Your task to perform on an android device: open app "VLC for Android" (install if not already installed) and go to login screen Image 0: 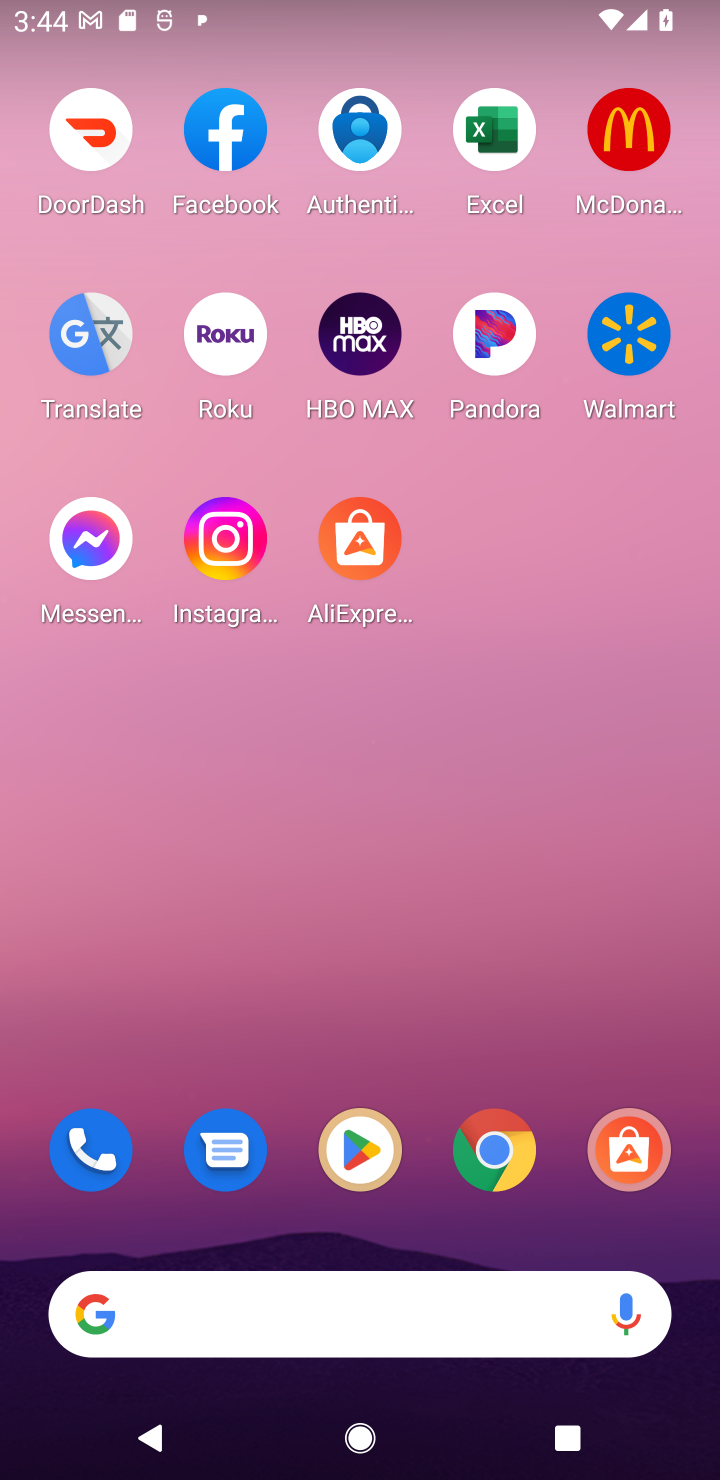
Step 0: click (364, 1145)
Your task to perform on an android device: open app "VLC for Android" (install if not already installed) and go to login screen Image 1: 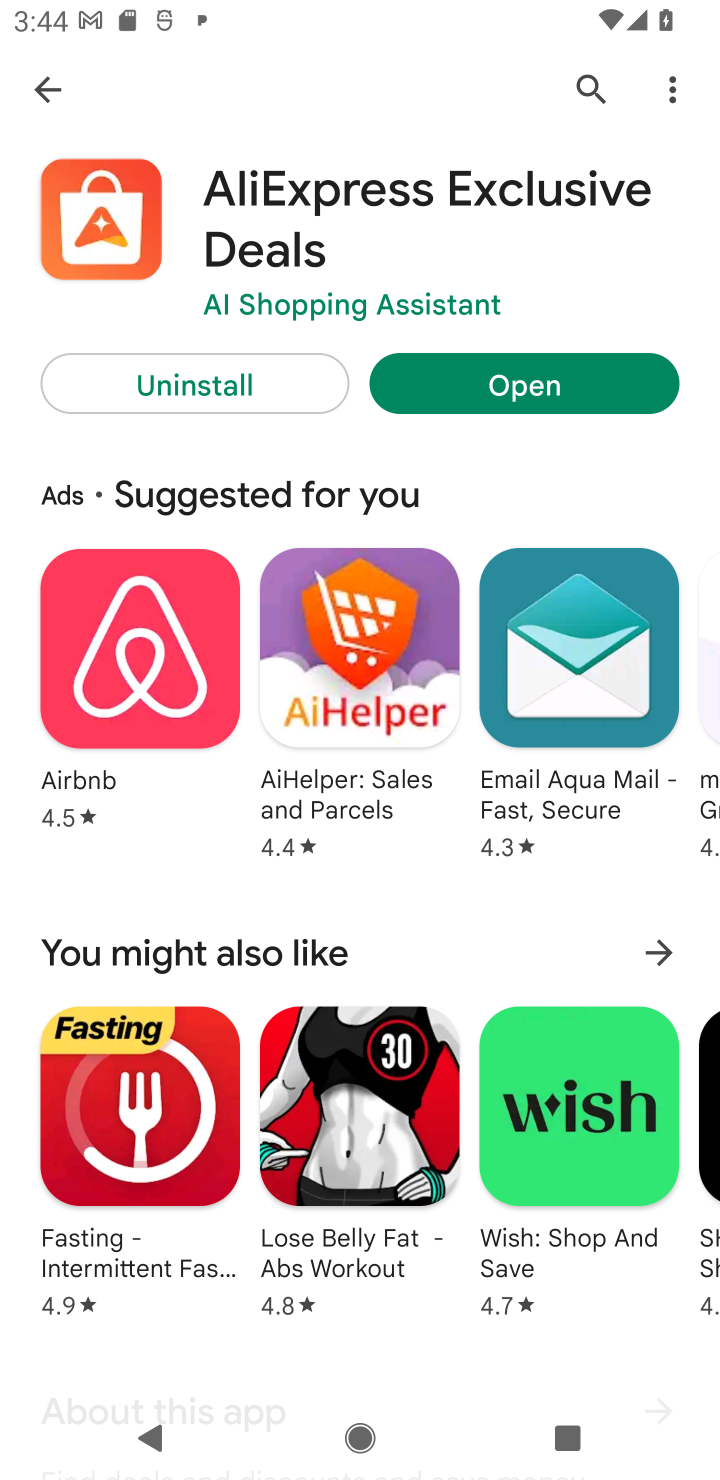
Step 1: click (580, 85)
Your task to perform on an android device: open app "VLC for Android" (install if not already installed) and go to login screen Image 2: 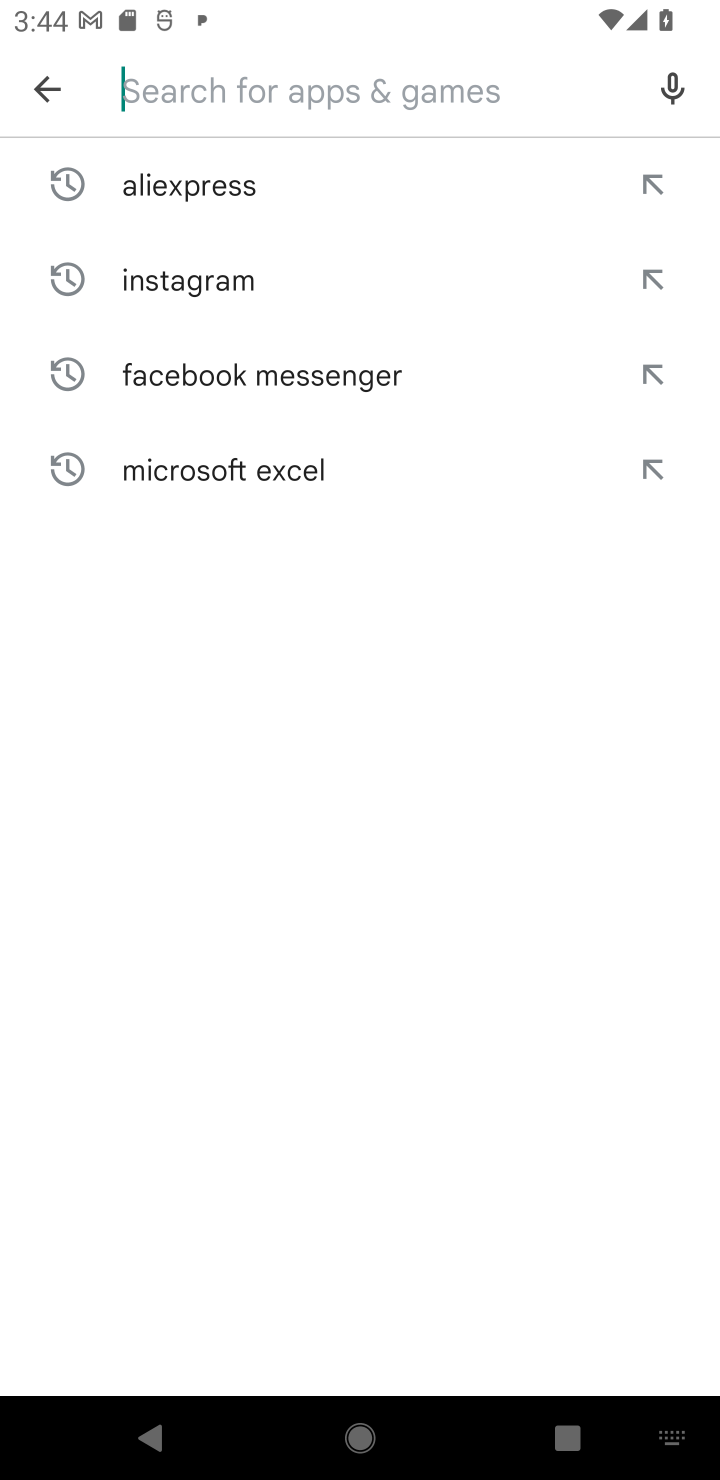
Step 2: type "VLC for Android"
Your task to perform on an android device: open app "VLC for Android" (install if not already installed) and go to login screen Image 3: 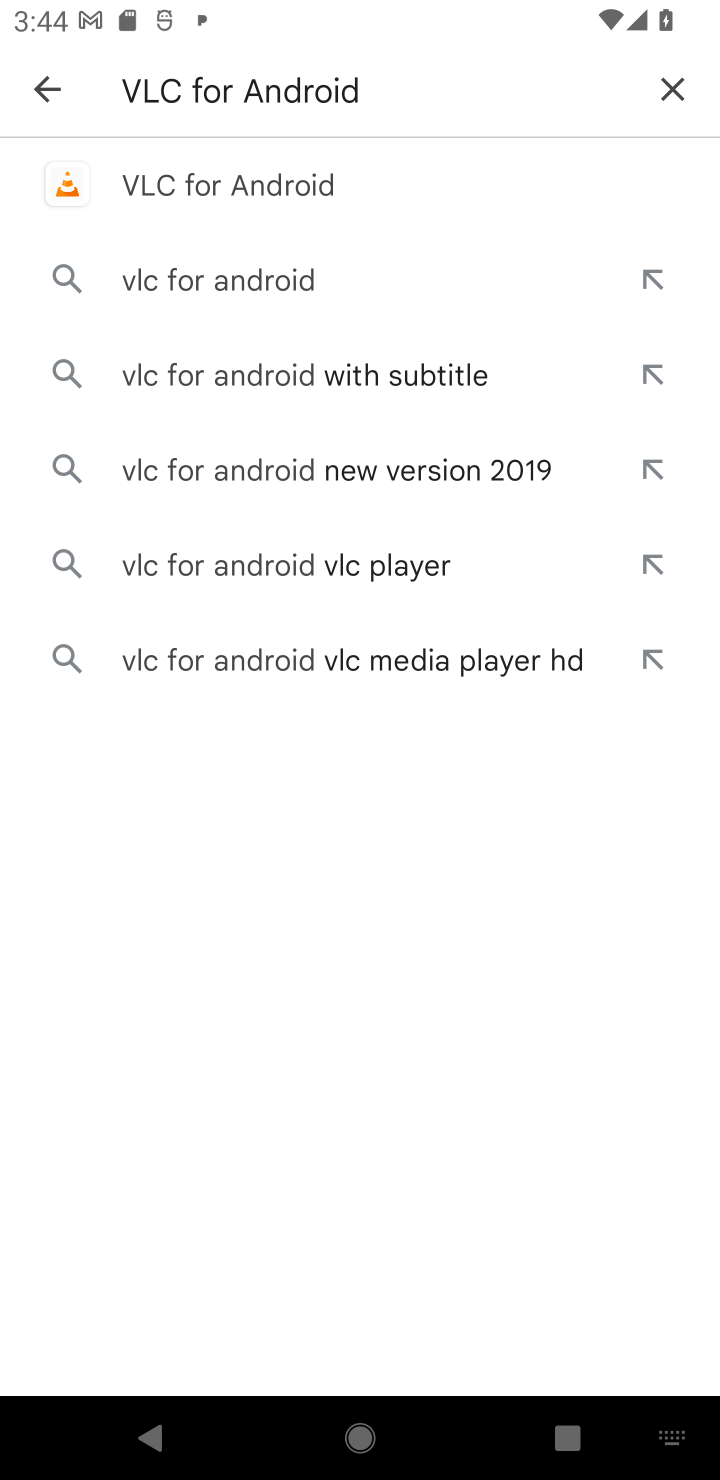
Step 3: click (217, 179)
Your task to perform on an android device: open app "VLC for Android" (install if not already installed) and go to login screen Image 4: 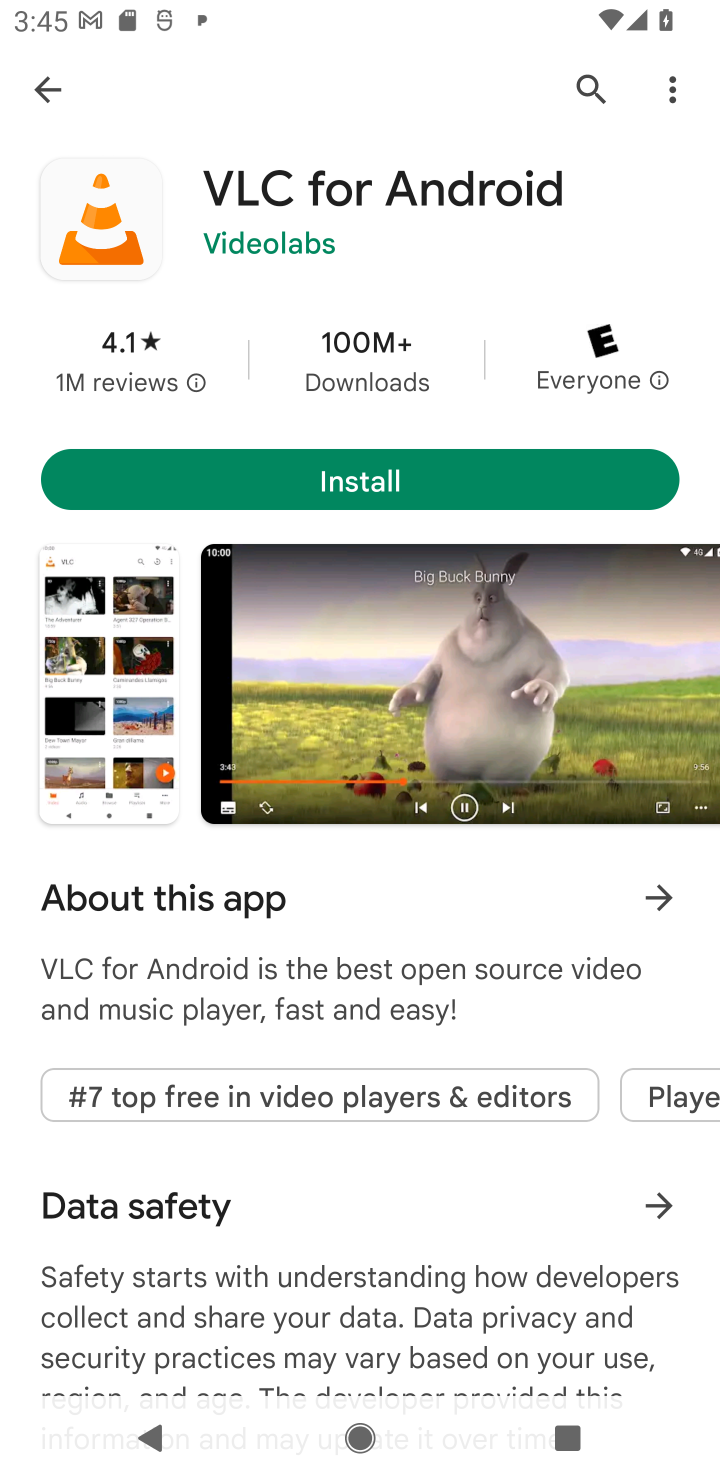
Step 4: click (361, 481)
Your task to perform on an android device: open app "VLC for Android" (install if not already installed) and go to login screen Image 5: 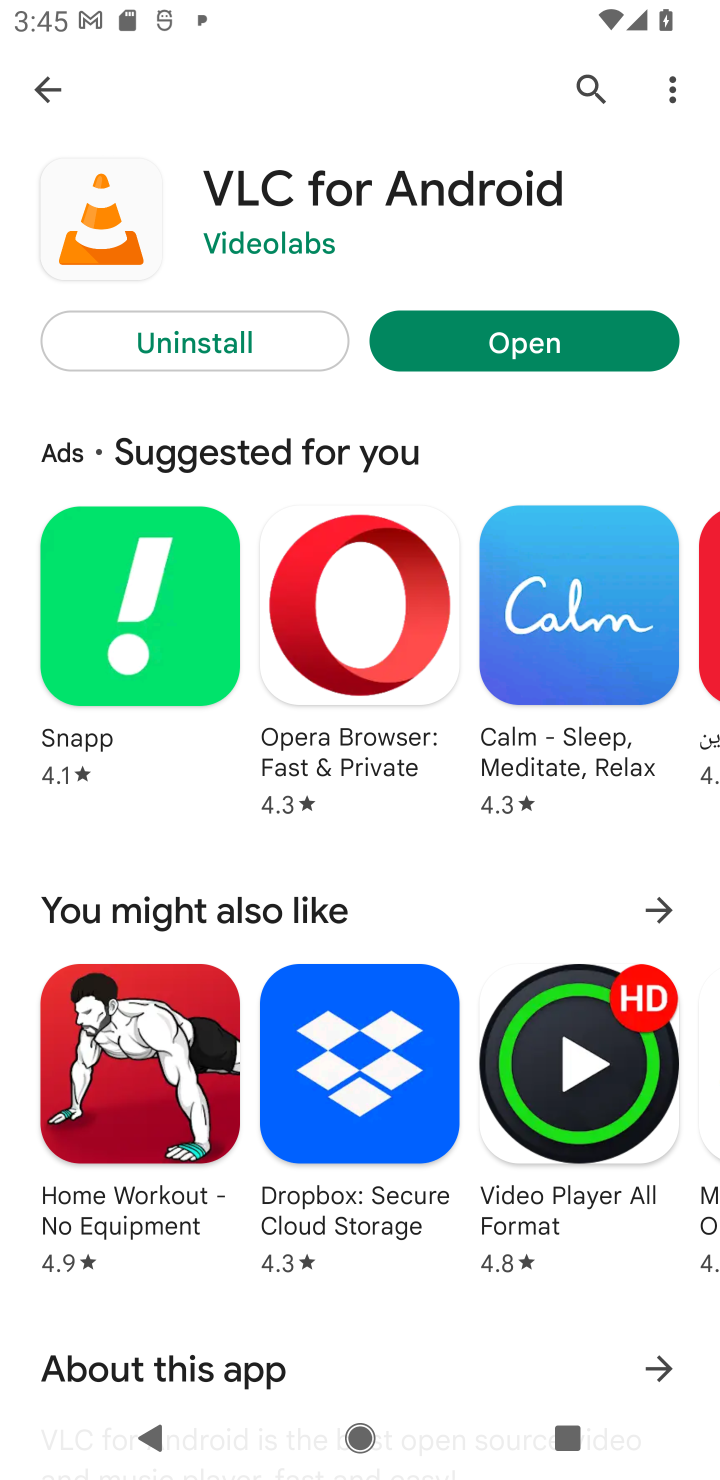
Step 5: click (528, 334)
Your task to perform on an android device: open app "VLC for Android" (install if not already installed) and go to login screen Image 6: 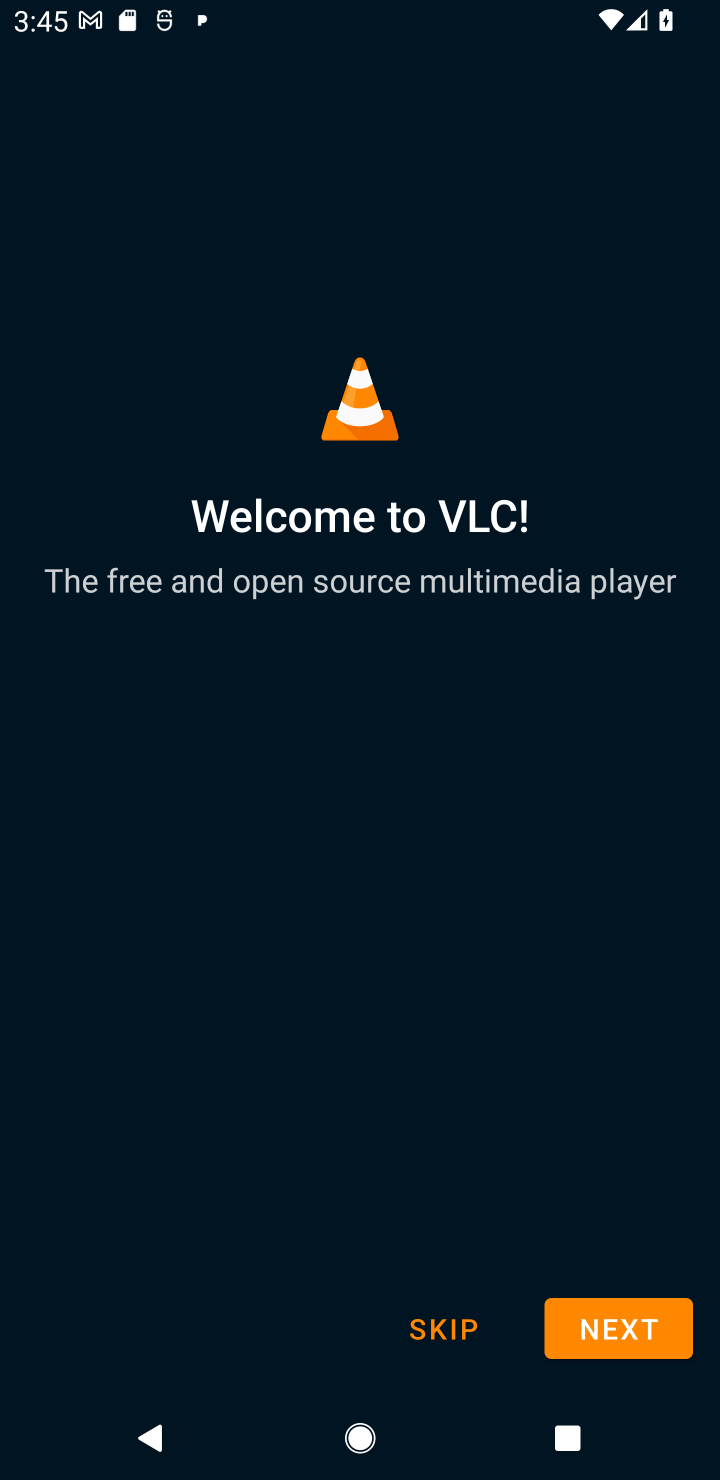
Step 6: click (434, 1330)
Your task to perform on an android device: open app "VLC for Android" (install if not already installed) and go to login screen Image 7: 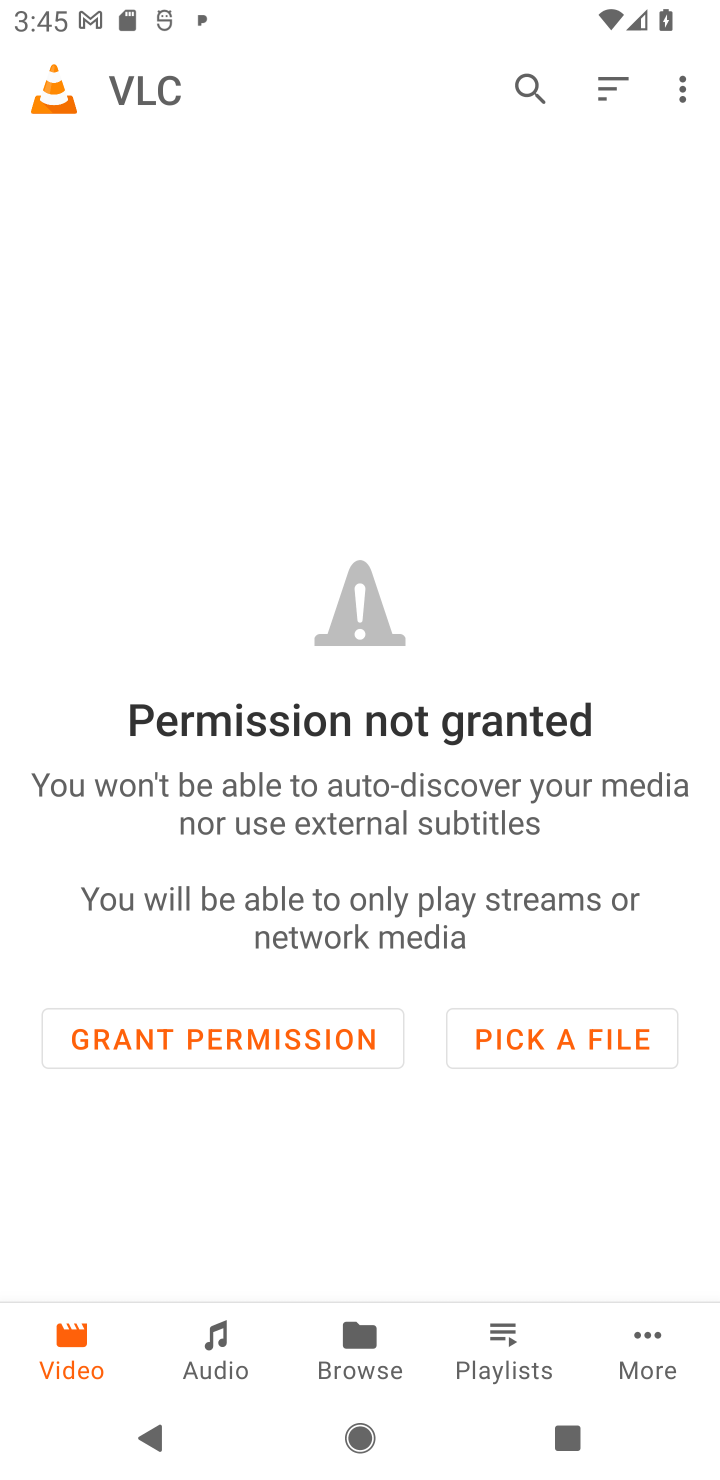
Step 7: click (646, 1339)
Your task to perform on an android device: open app "VLC for Android" (install if not already installed) and go to login screen Image 8: 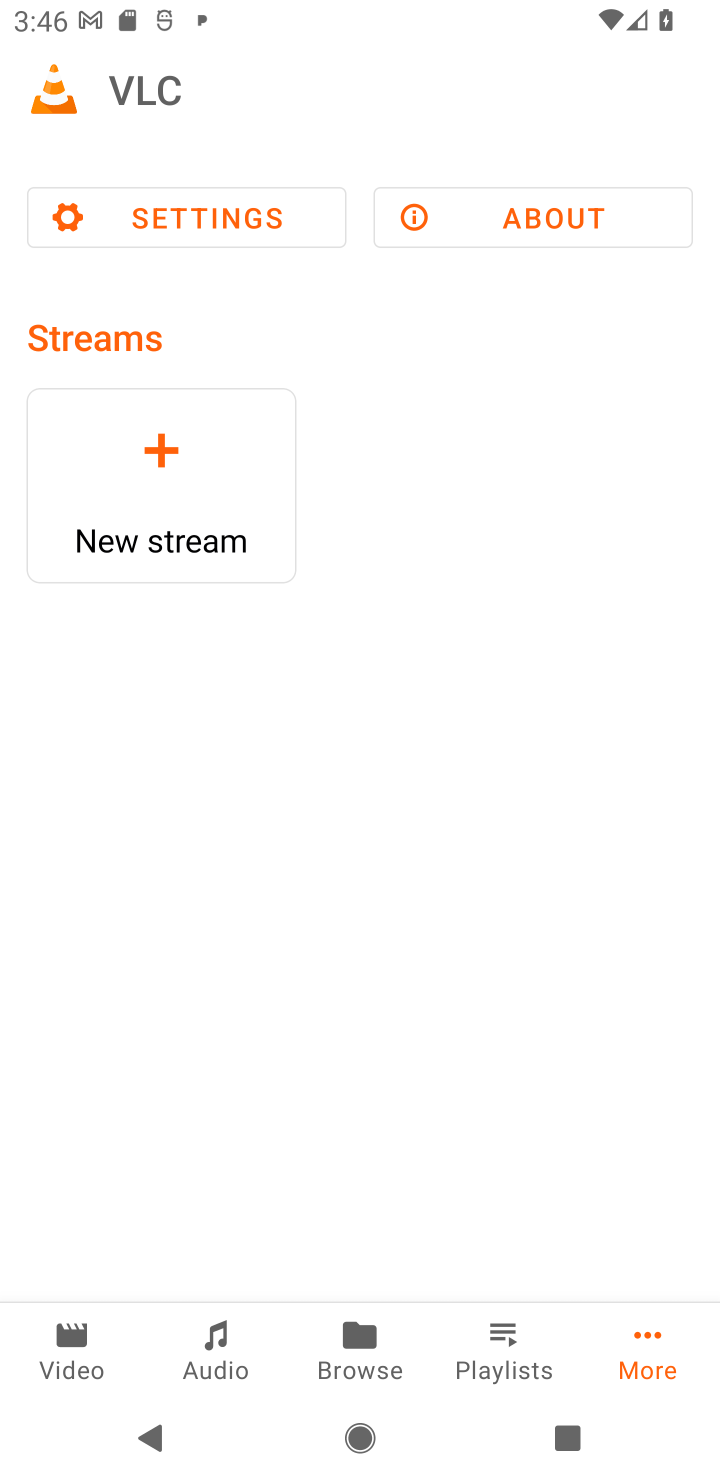
Step 8: press back button
Your task to perform on an android device: open app "VLC for Android" (install if not already installed) and go to login screen Image 9: 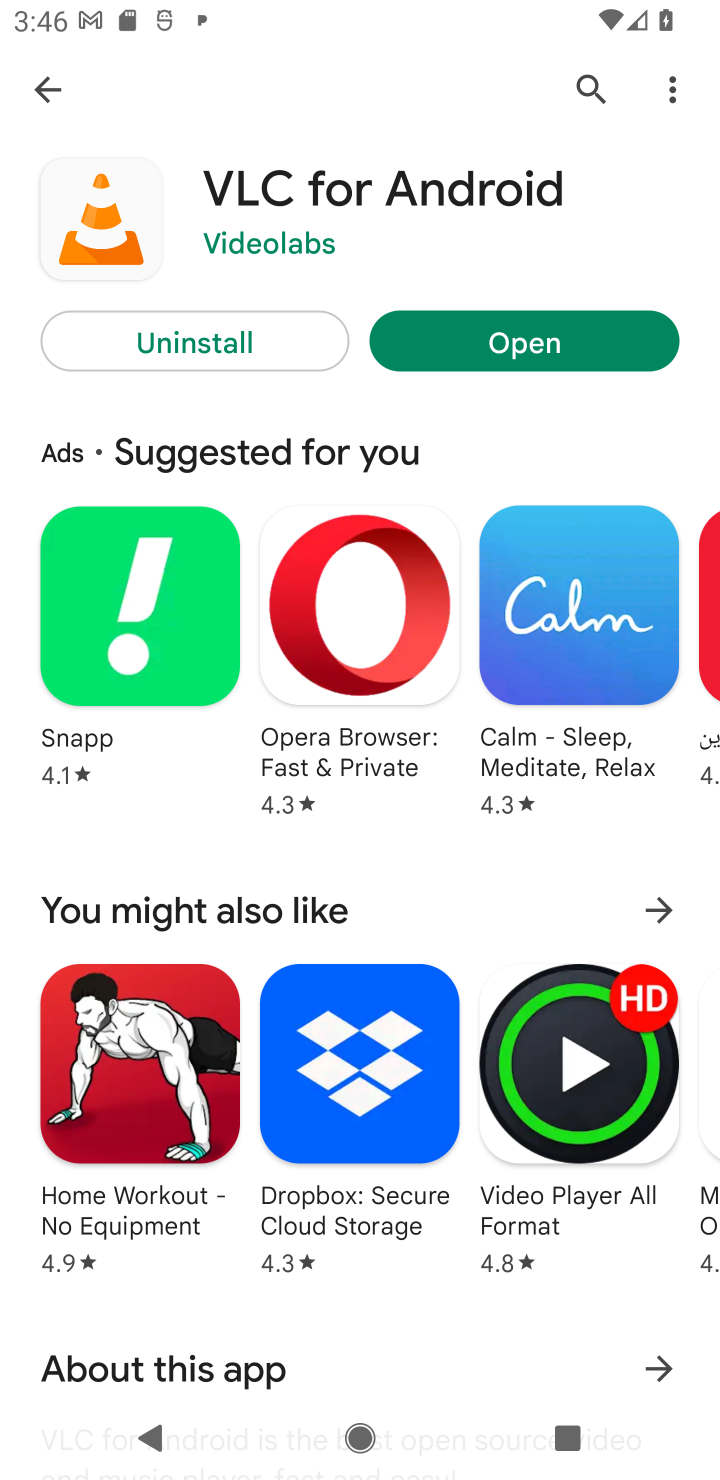
Step 9: click (505, 335)
Your task to perform on an android device: open app "VLC for Android" (install if not already installed) and go to login screen Image 10: 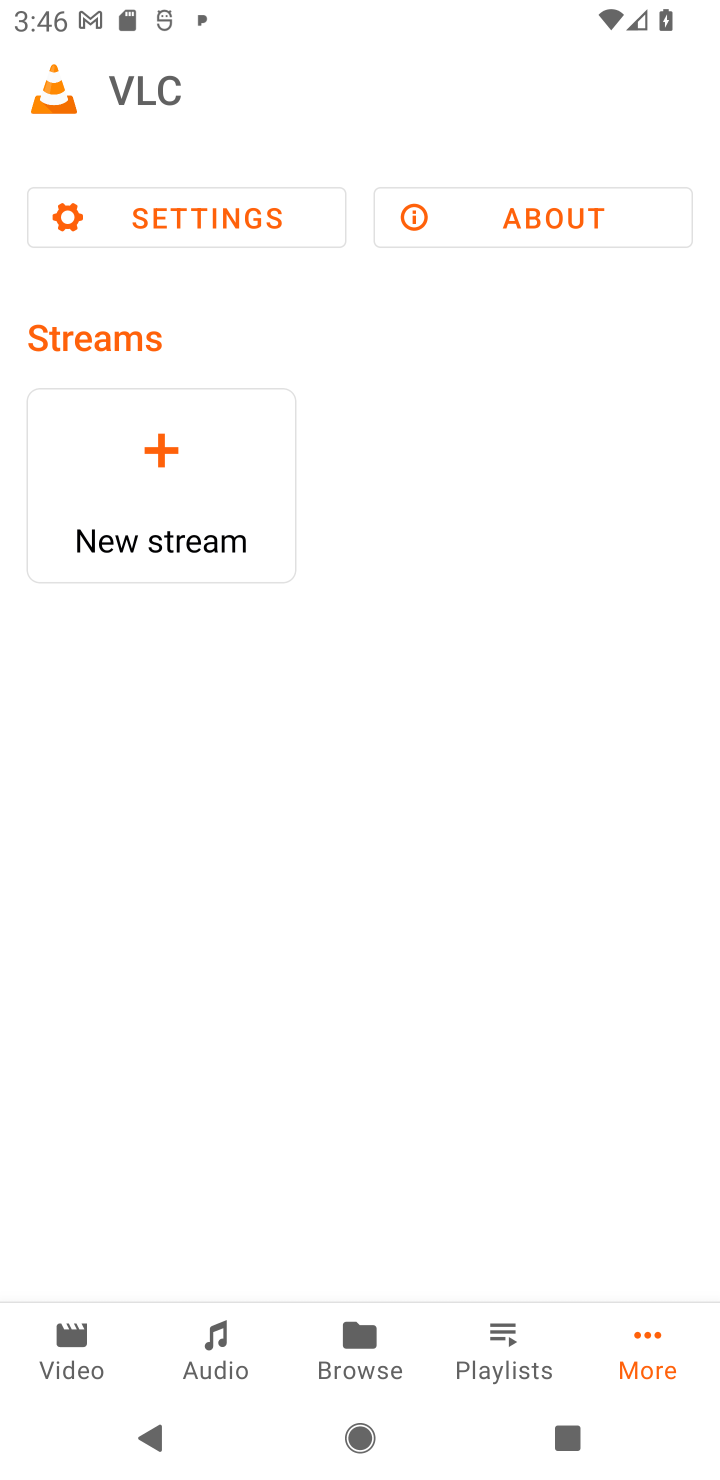
Step 10: click (76, 214)
Your task to perform on an android device: open app "VLC for Android" (install if not already installed) and go to login screen Image 11: 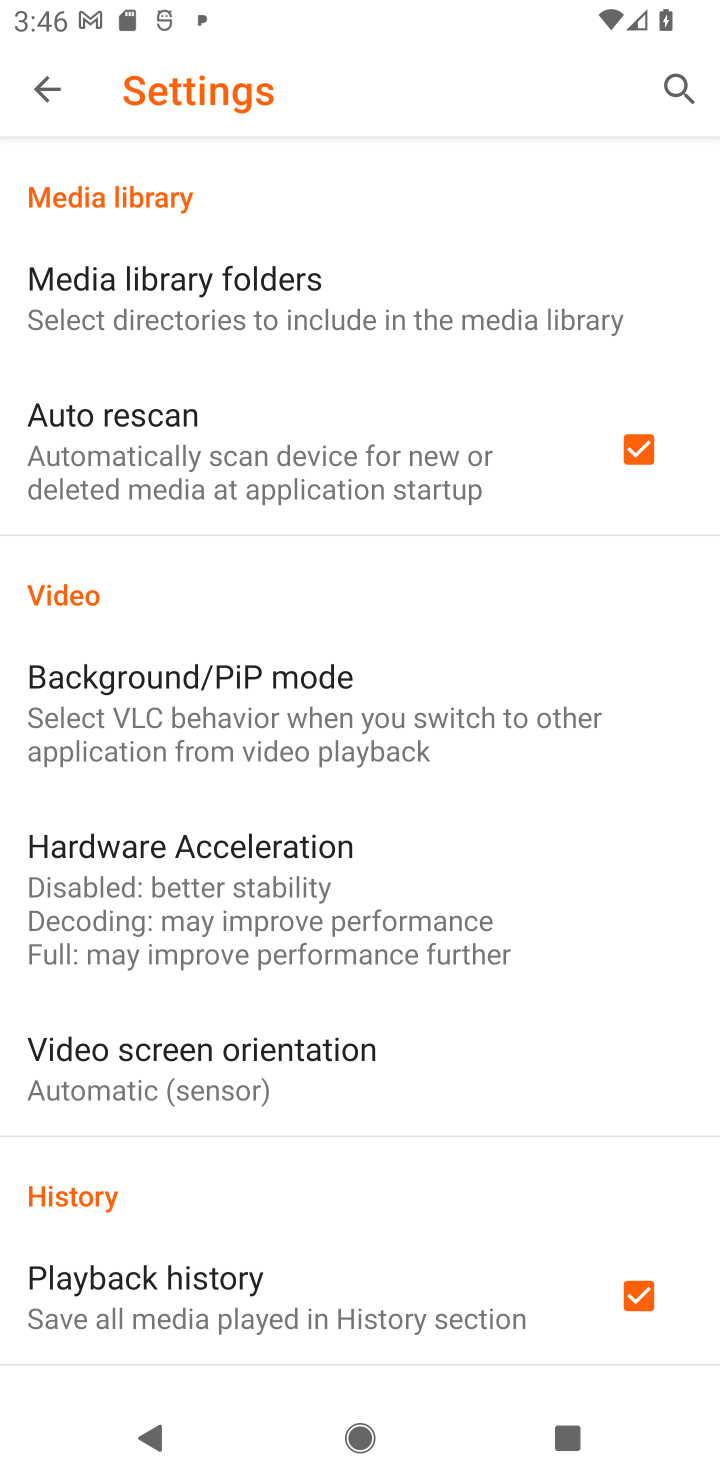
Step 11: drag from (417, 1258) to (428, 518)
Your task to perform on an android device: open app "VLC for Android" (install if not already installed) and go to login screen Image 12: 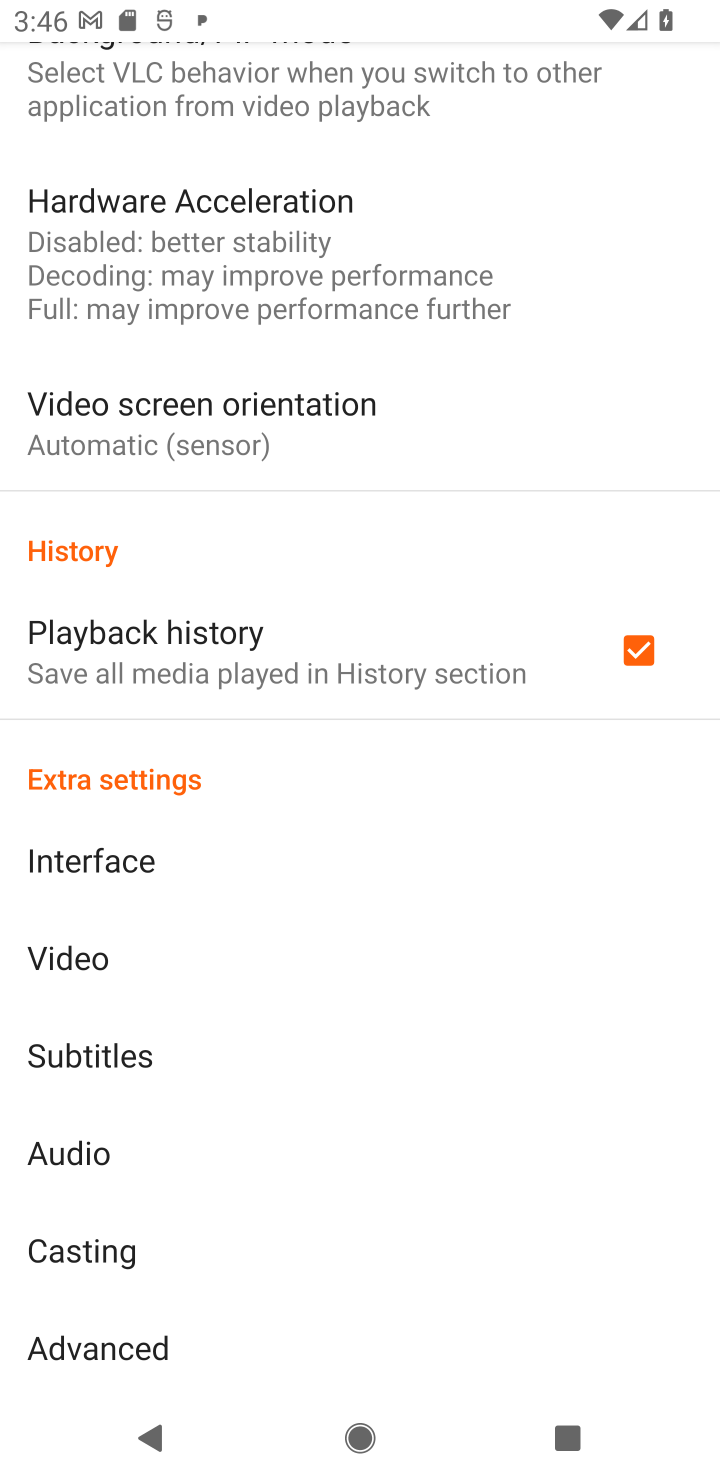
Step 12: drag from (405, 1276) to (384, 672)
Your task to perform on an android device: open app "VLC for Android" (install if not already installed) and go to login screen Image 13: 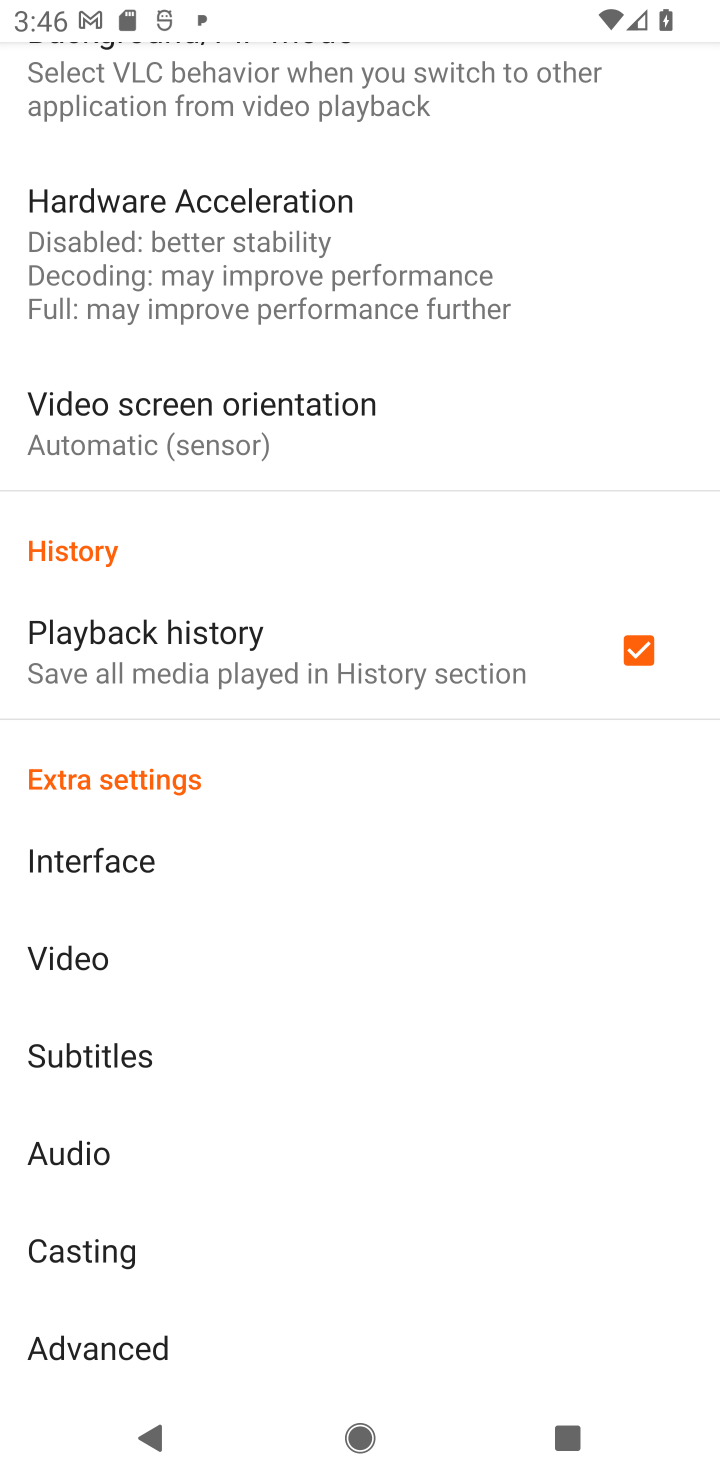
Step 13: drag from (384, 672) to (377, 1148)
Your task to perform on an android device: open app "VLC for Android" (install if not already installed) and go to login screen Image 14: 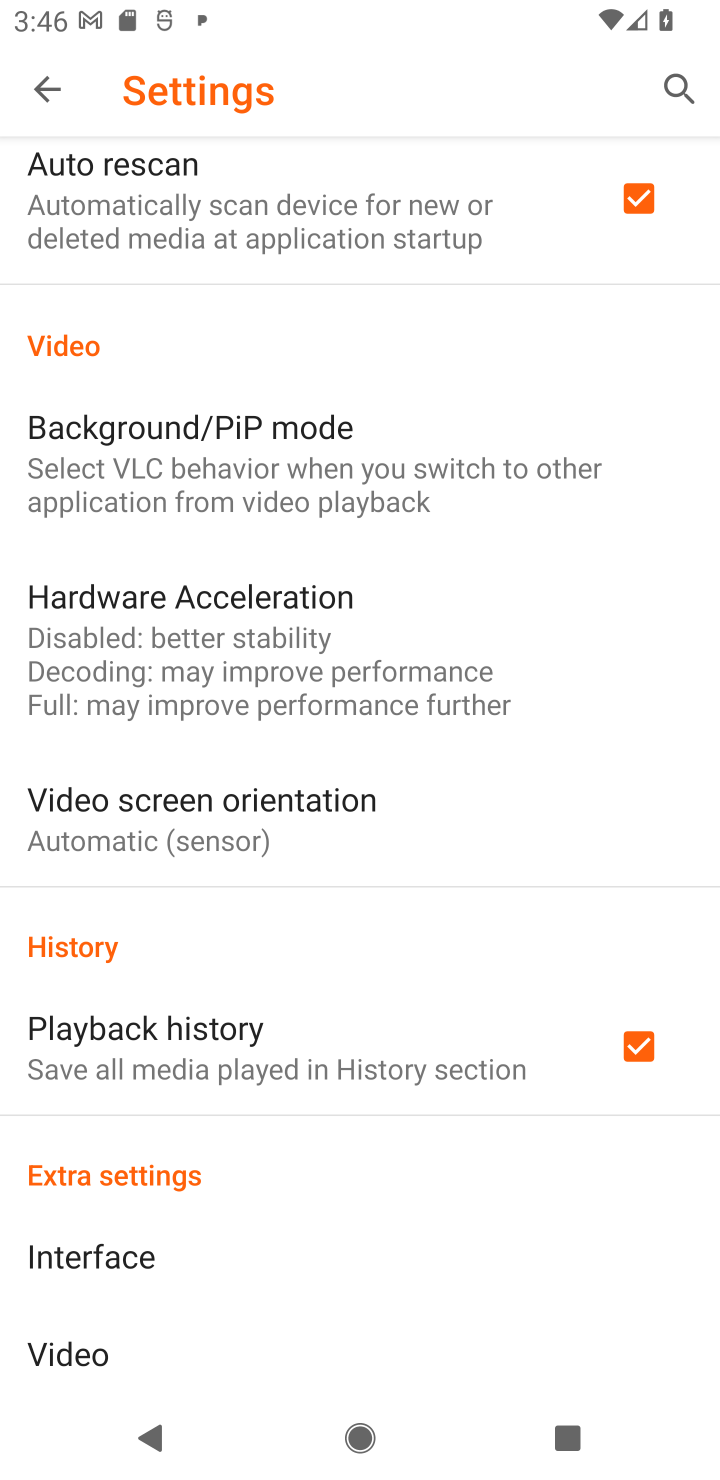
Step 14: drag from (502, 430) to (467, 1041)
Your task to perform on an android device: open app "VLC for Android" (install if not already installed) and go to login screen Image 15: 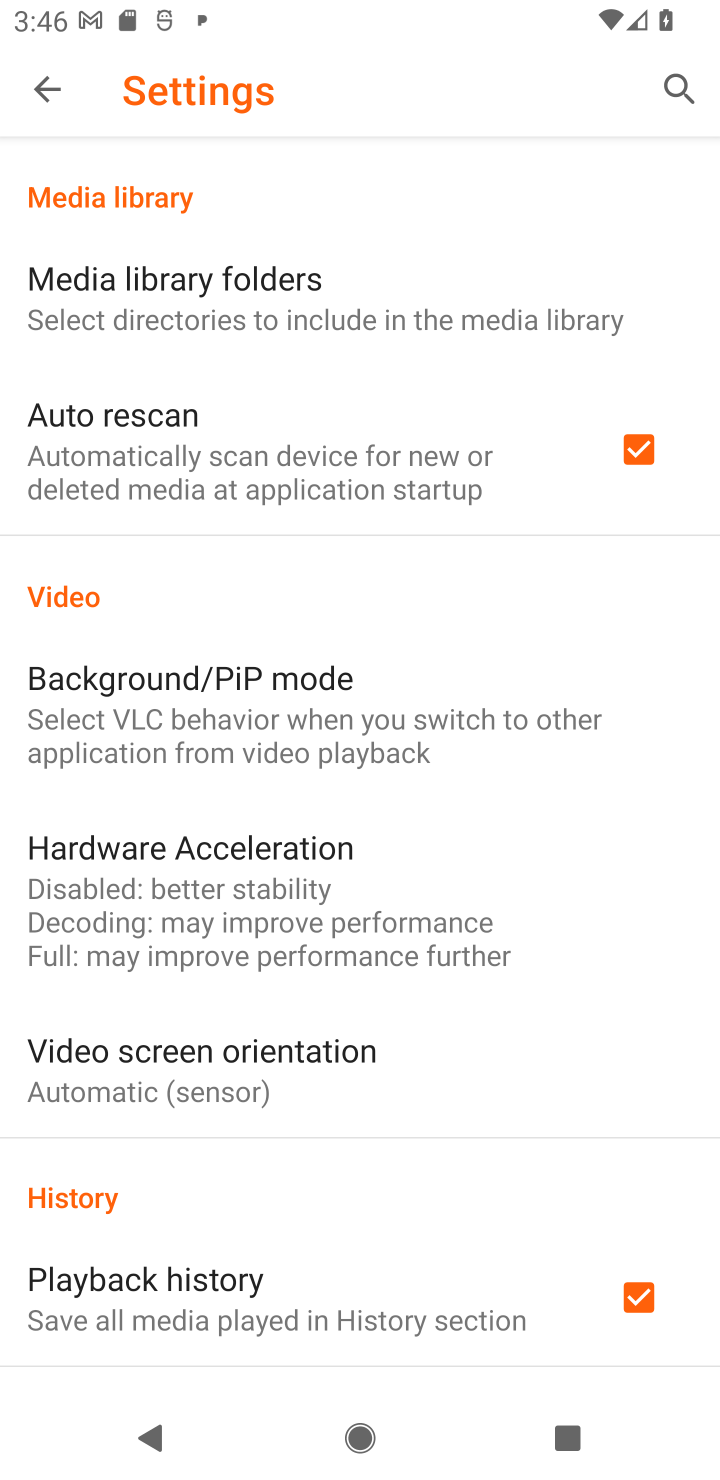
Step 15: press back button
Your task to perform on an android device: open app "VLC for Android" (install if not already installed) and go to login screen Image 16: 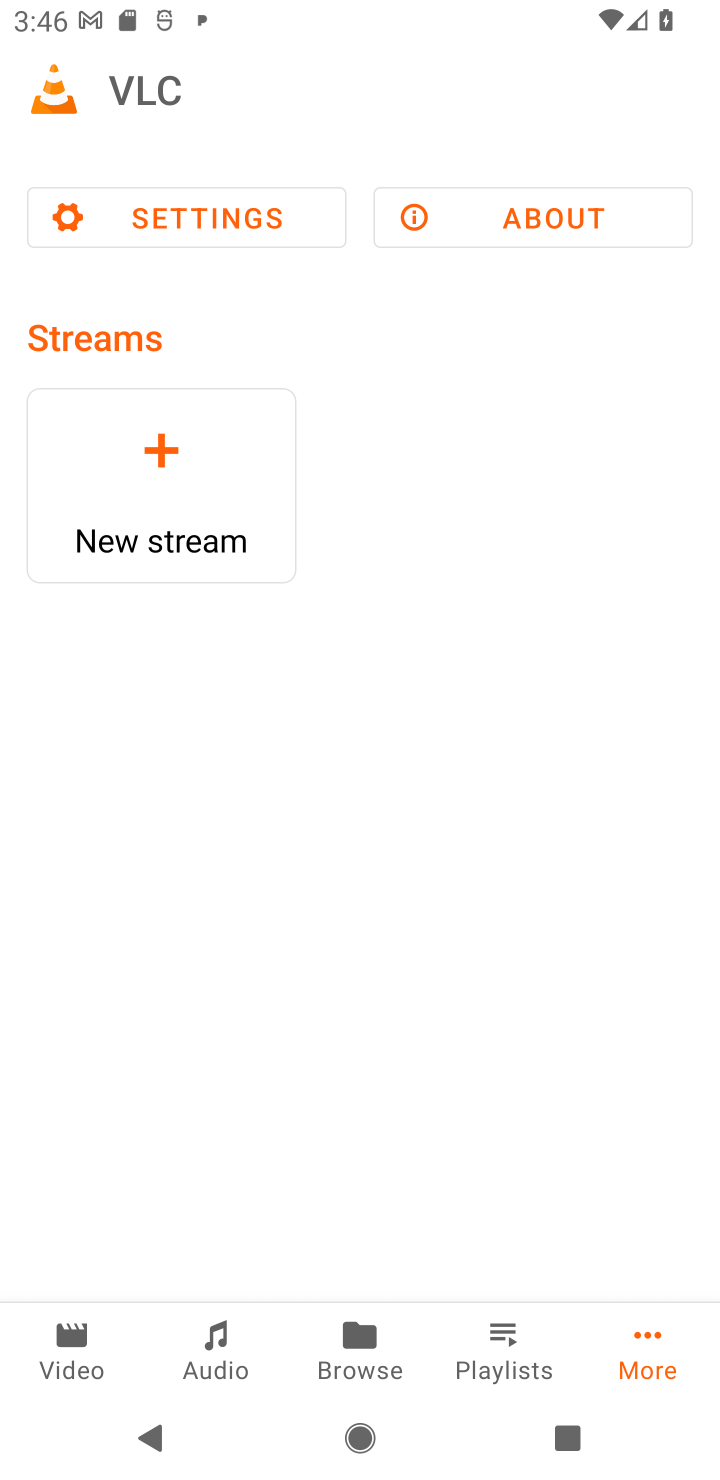
Step 16: click (43, 1369)
Your task to perform on an android device: open app "VLC for Android" (install if not already installed) and go to login screen Image 17: 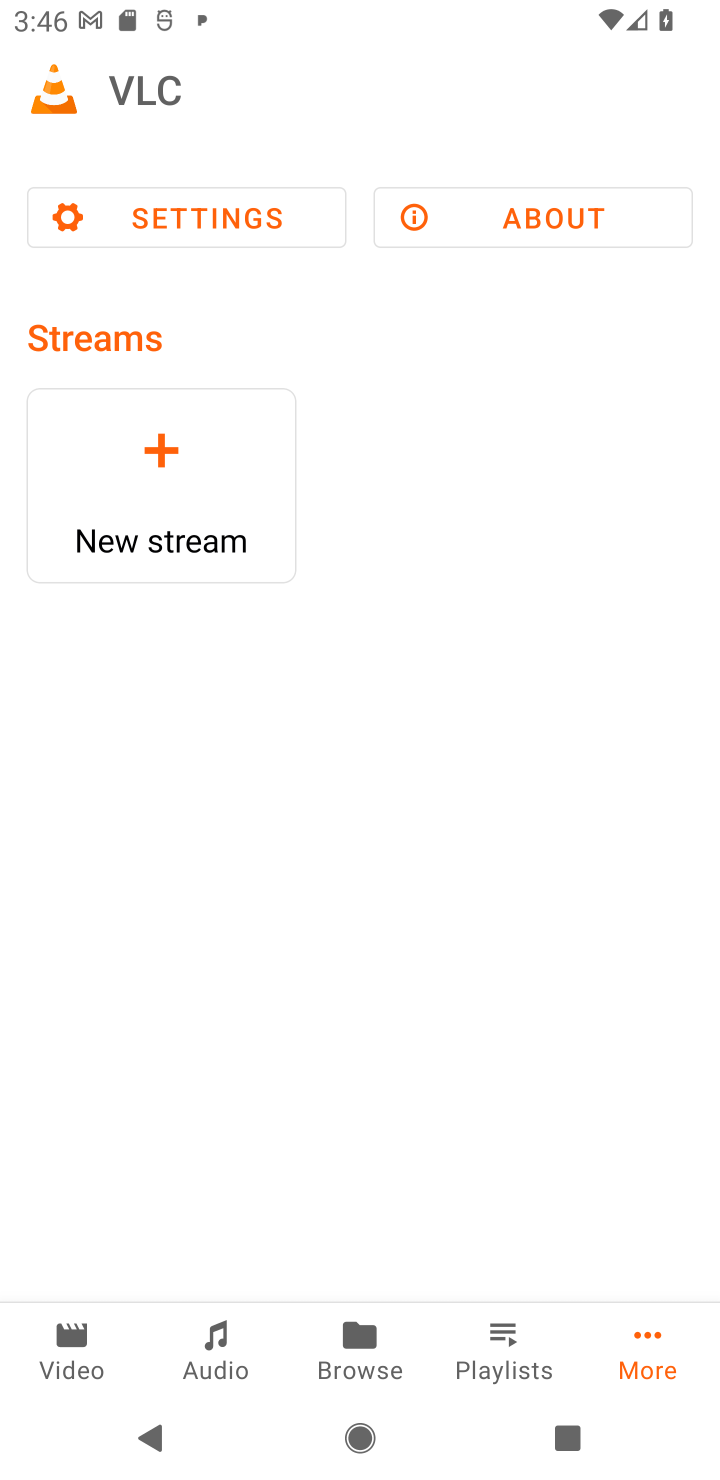
Step 17: click (397, 1342)
Your task to perform on an android device: open app "VLC for Android" (install if not already installed) and go to login screen Image 18: 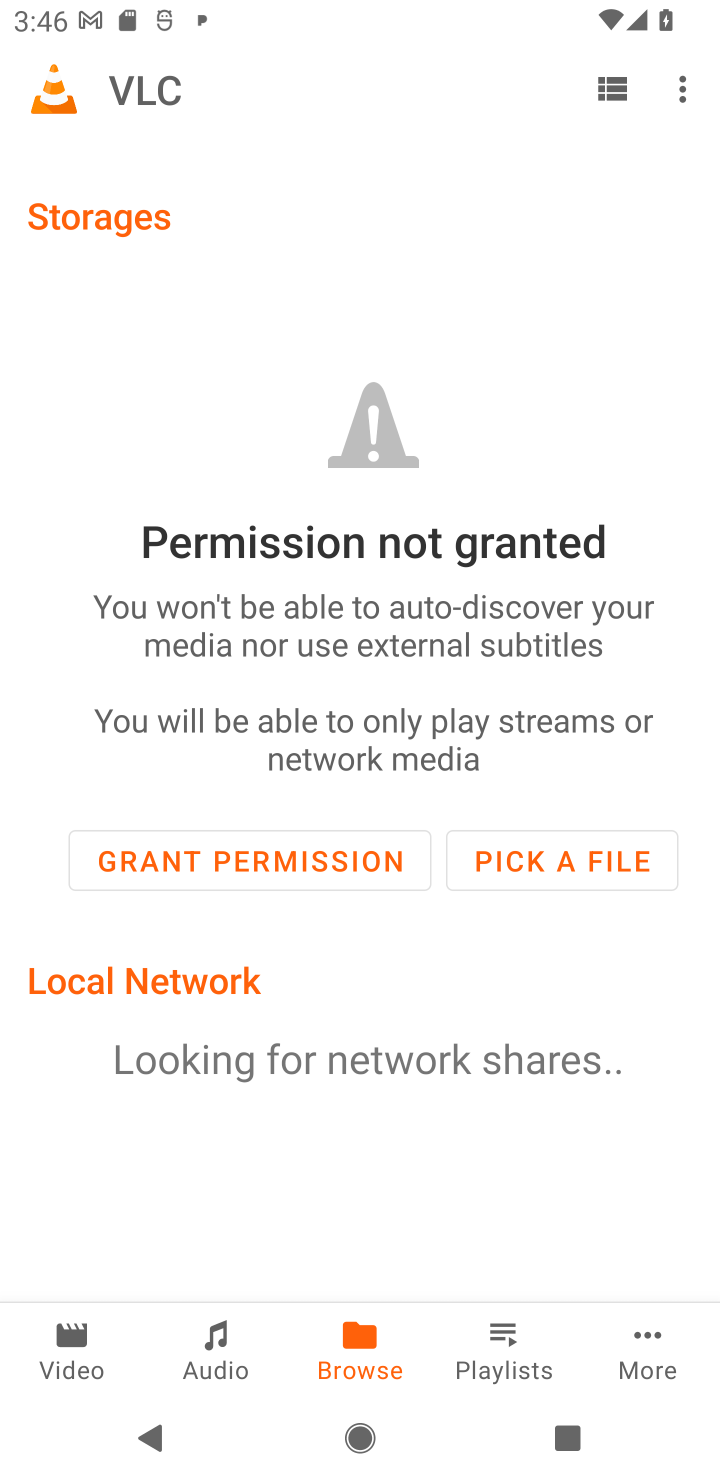
Step 18: click (676, 99)
Your task to perform on an android device: open app "VLC for Android" (install if not already installed) and go to login screen Image 19: 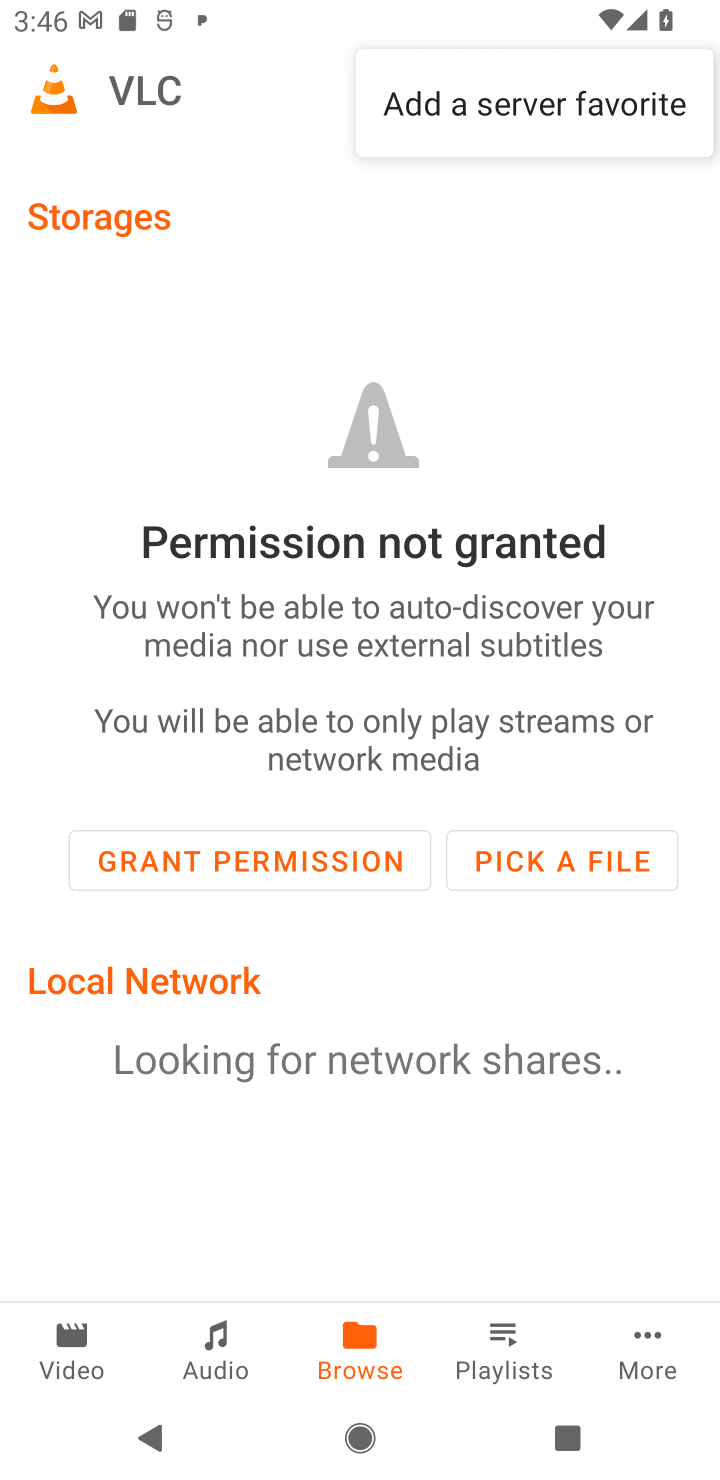
Step 19: click (61, 1373)
Your task to perform on an android device: open app "VLC for Android" (install if not already installed) and go to login screen Image 20: 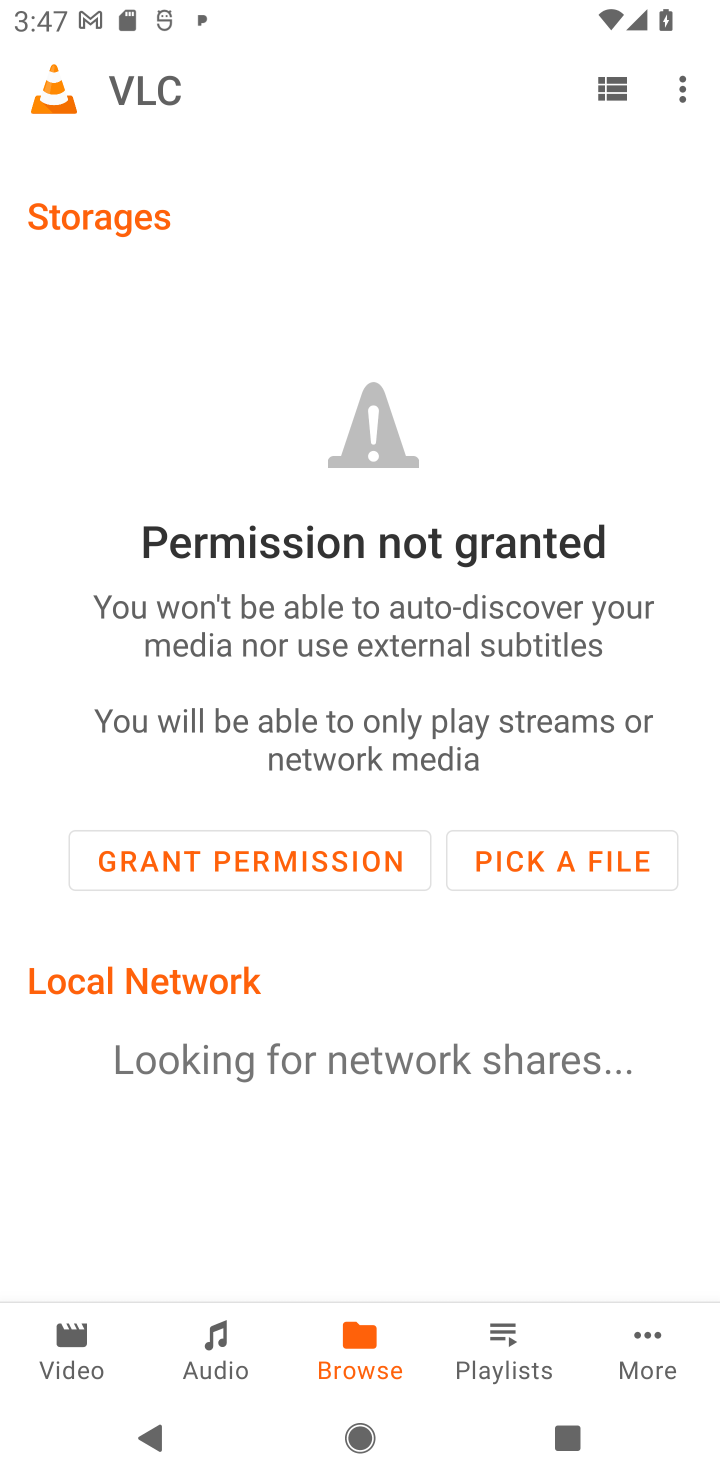
Step 20: click (73, 1354)
Your task to perform on an android device: open app "VLC for Android" (install if not already installed) and go to login screen Image 21: 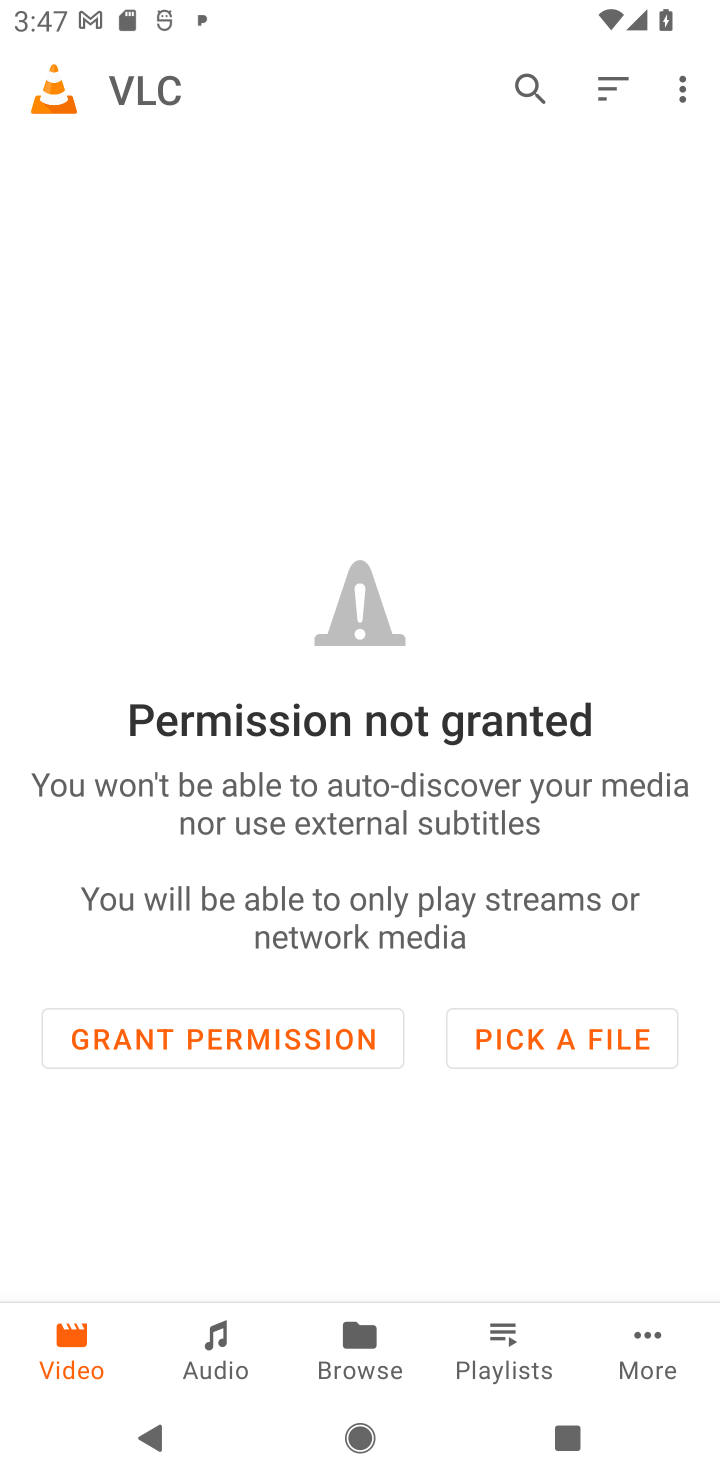
Step 21: click (673, 96)
Your task to perform on an android device: open app "VLC for Android" (install if not already installed) and go to login screen Image 22: 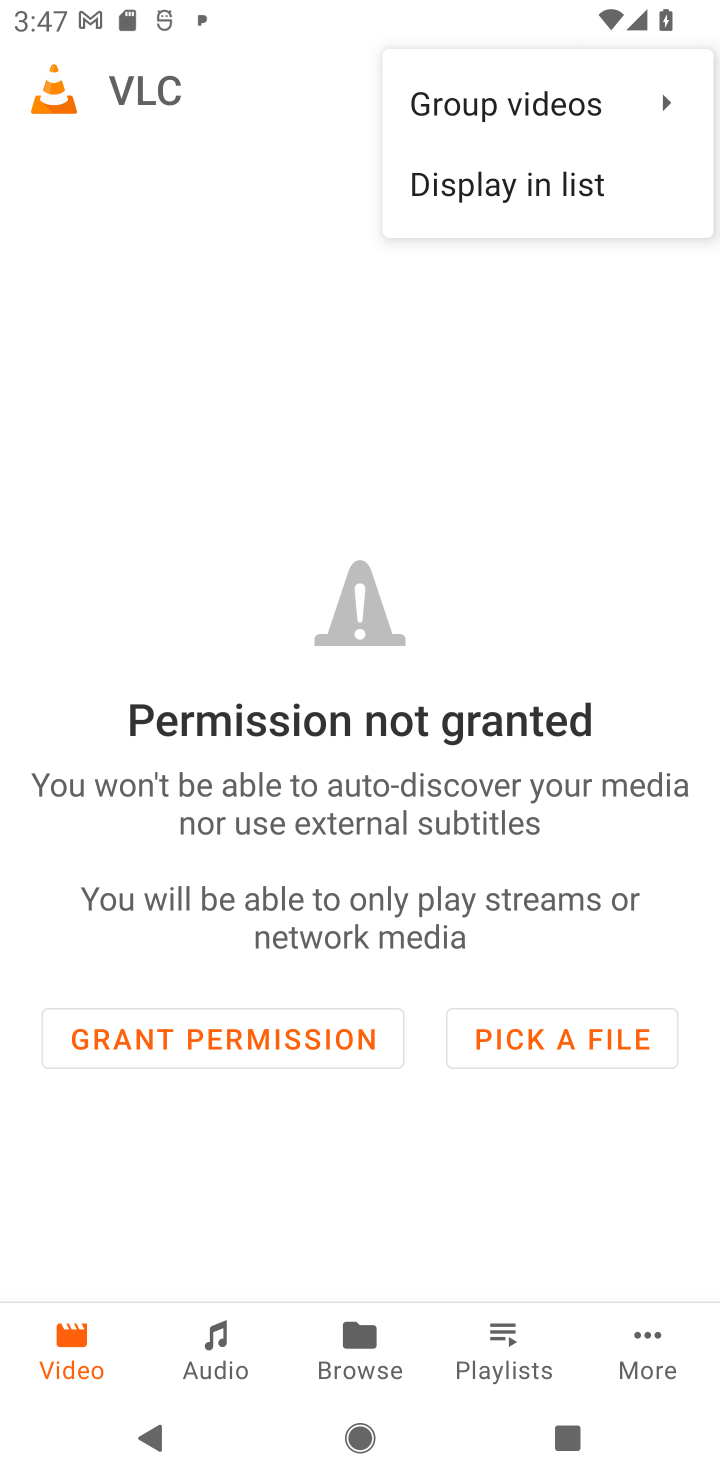
Step 22: task complete